Your task to perform on an android device: change the clock display to show seconds Image 0: 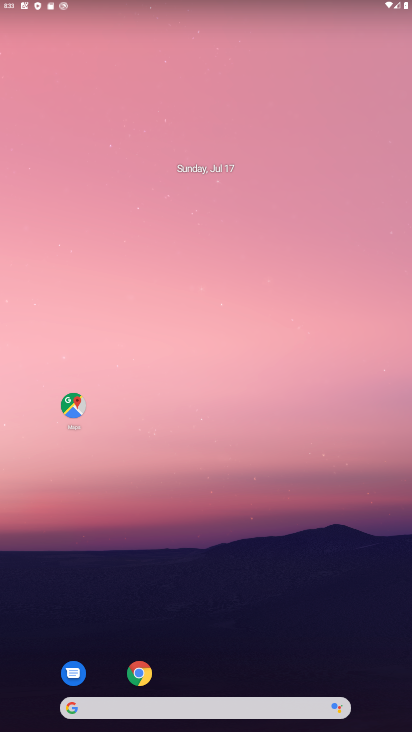
Step 0: drag from (279, 615) to (257, 92)
Your task to perform on an android device: change the clock display to show seconds Image 1: 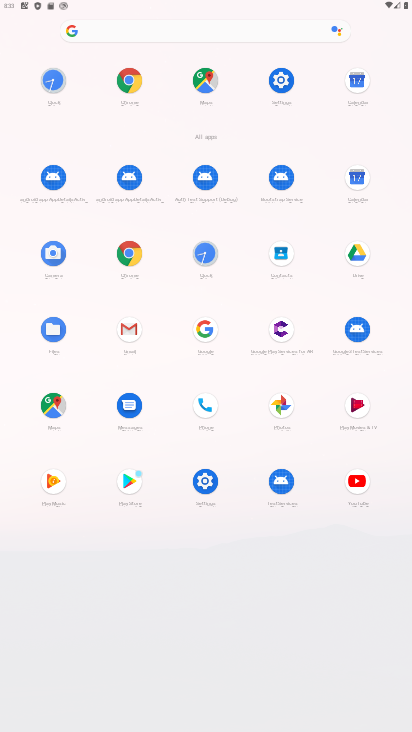
Step 1: click (201, 249)
Your task to perform on an android device: change the clock display to show seconds Image 2: 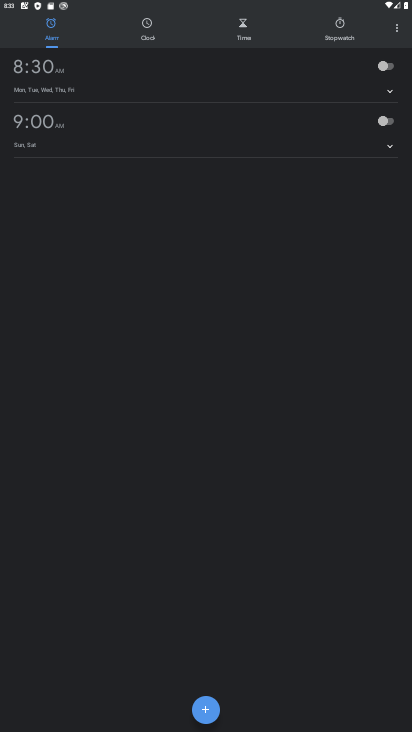
Step 2: click (388, 29)
Your task to perform on an android device: change the clock display to show seconds Image 3: 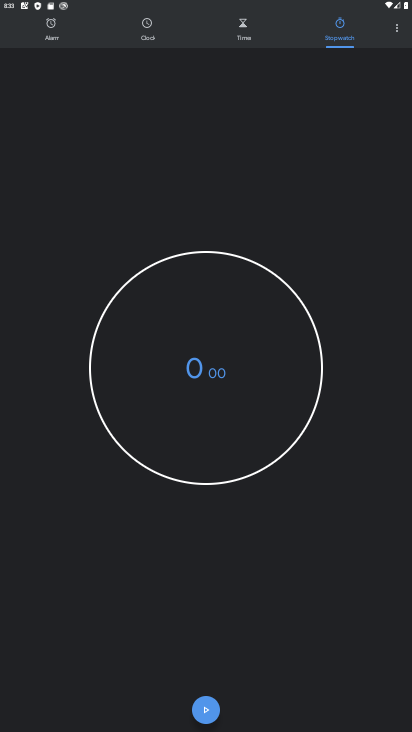
Step 3: click (399, 31)
Your task to perform on an android device: change the clock display to show seconds Image 4: 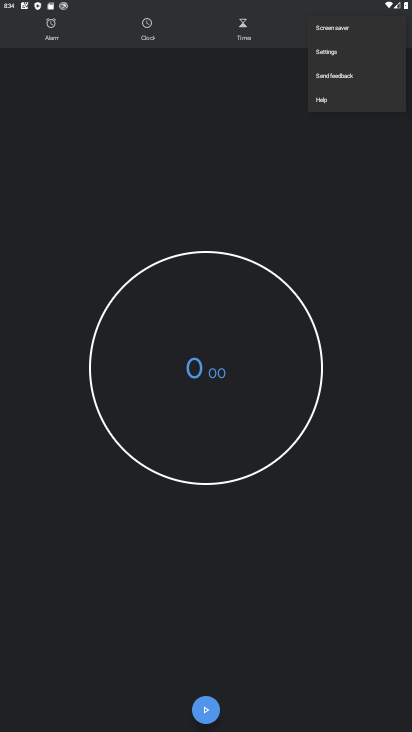
Step 4: click (325, 53)
Your task to perform on an android device: change the clock display to show seconds Image 5: 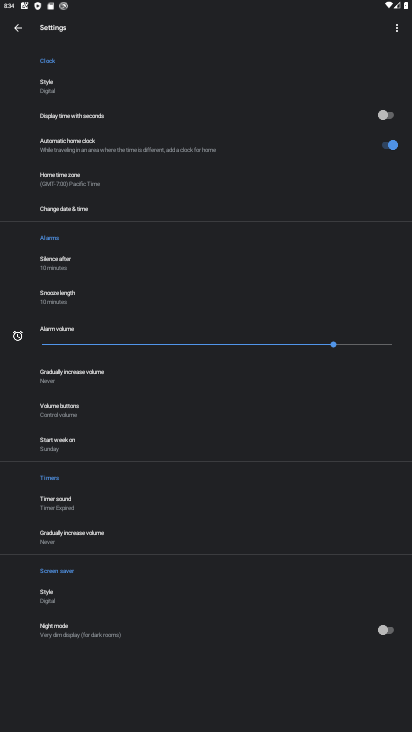
Step 5: click (385, 107)
Your task to perform on an android device: change the clock display to show seconds Image 6: 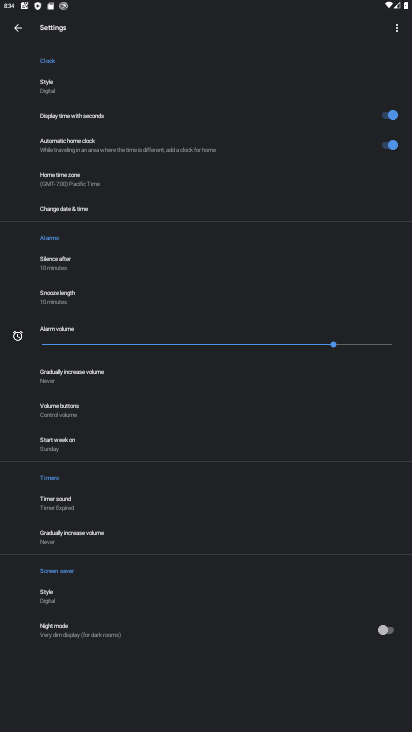
Step 6: task complete